Your task to perform on an android device: Go to Maps Image 0: 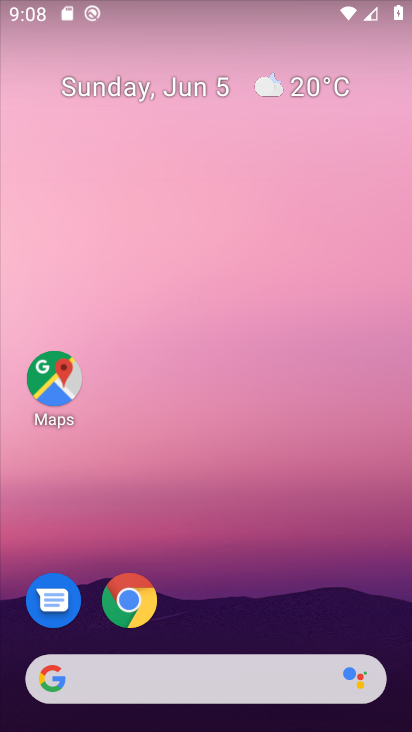
Step 0: click (41, 368)
Your task to perform on an android device: Go to Maps Image 1: 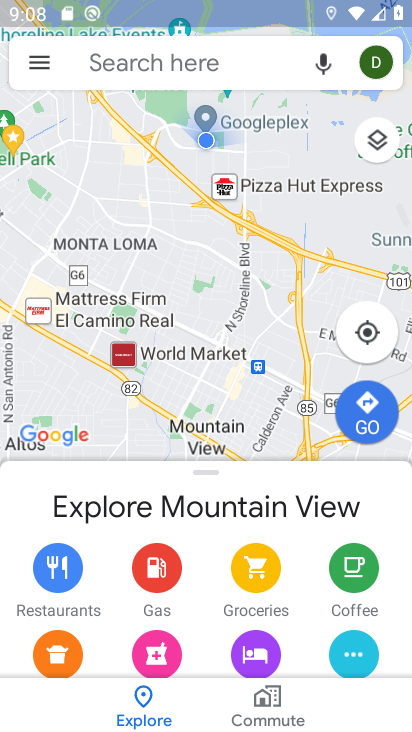
Step 1: task complete